Your task to perform on an android device: What's on my calendar today? Image 0: 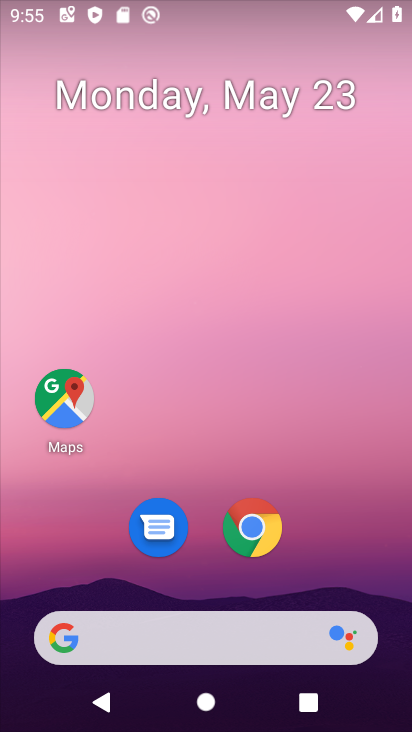
Step 0: drag from (190, 648) to (116, 70)
Your task to perform on an android device: What's on my calendar today? Image 1: 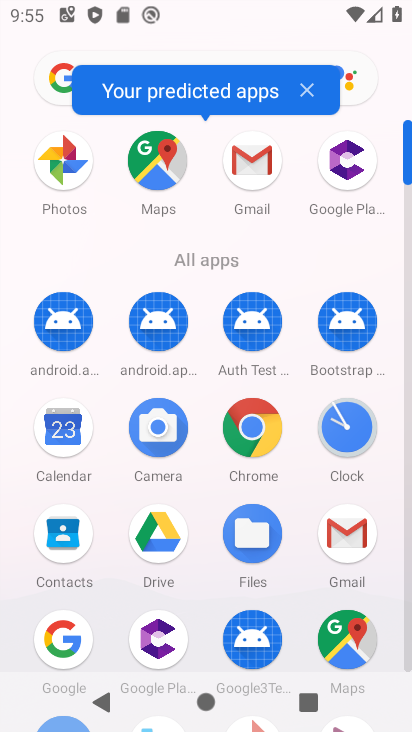
Step 1: click (74, 451)
Your task to perform on an android device: What's on my calendar today? Image 2: 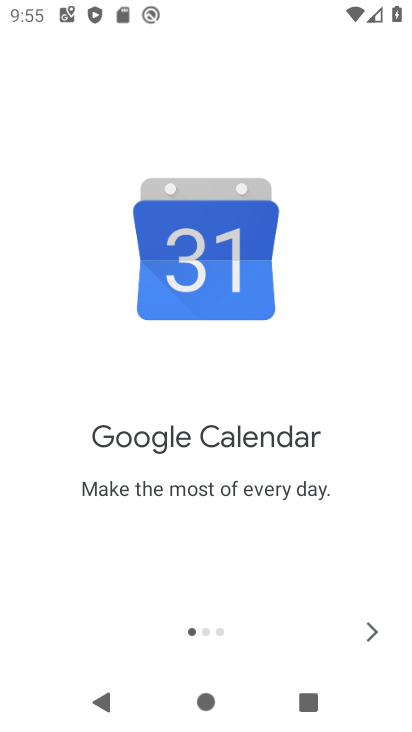
Step 2: click (366, 629)
Your task to perform on an android device: What's on my calendar today? Image 3: 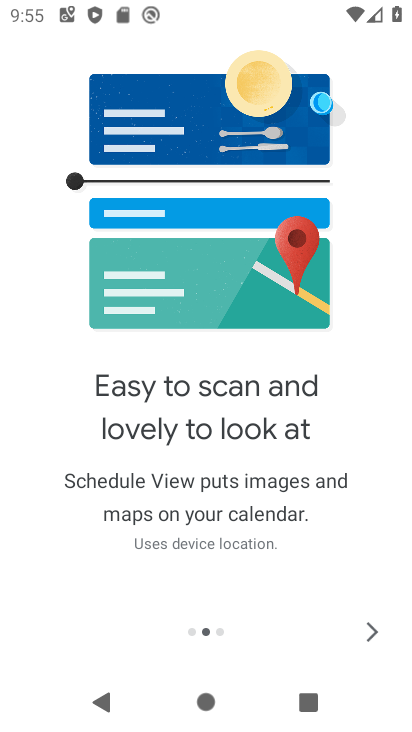
Step 3: click (366, 629)
Your task to perform on an android device: What's on my calendar today? Image 4: 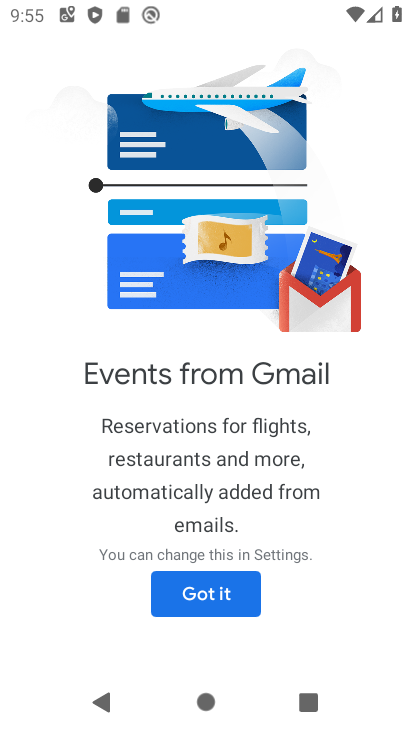
Step 4: click (225, 597)
Your task to perform on an android device: What's on my calendar today? Image 5: 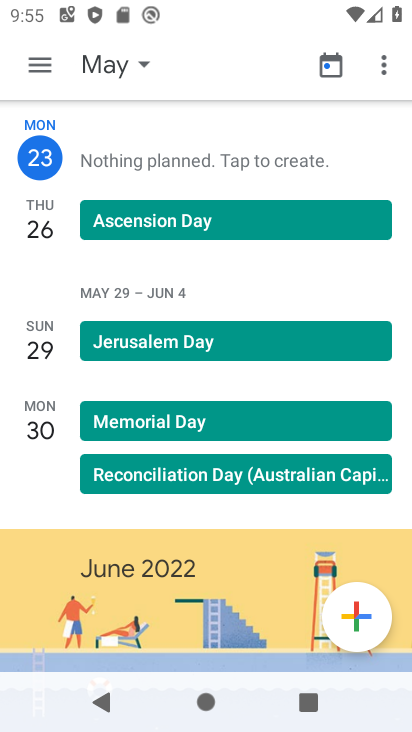
Step 5: task complete